Your task to perform on an android device: make emails show in primary in the gmail app Image 0: 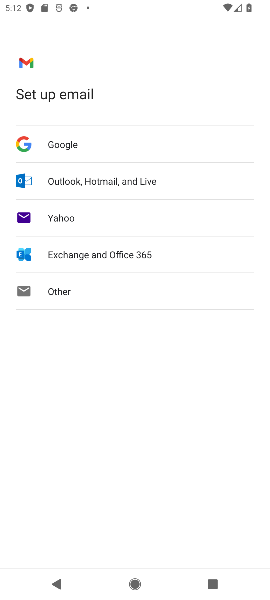
Step 0: press back button
Your task to perform on an android device: make emails show in primary in the gmail app Image 1: 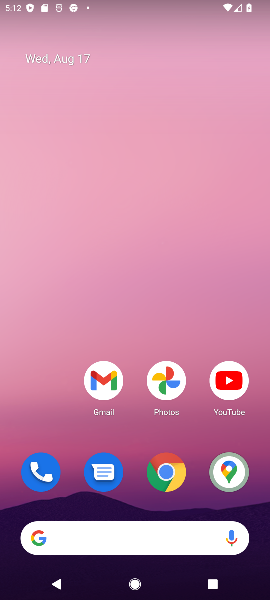
Step 1: click (111, 393)
Your task to perform on an android device: make emails show in primary in the gmail app Image 2: 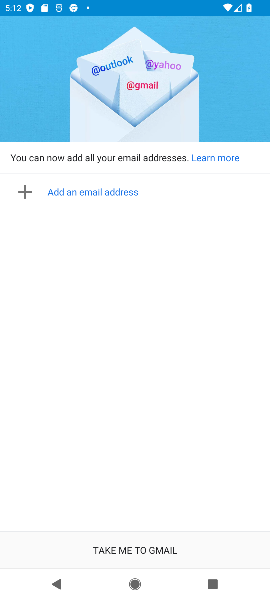
Step 2: click (145, 546)
Your task to perform on an android device: make emails show in primary in the gmail app Image 3: 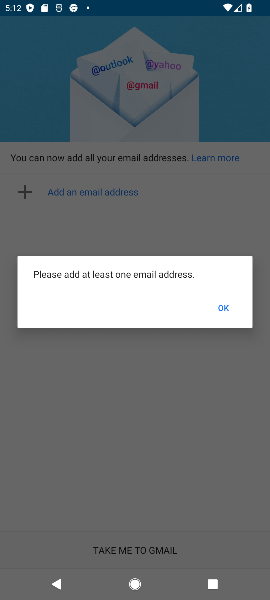
Step 3: task complete